Your task to perform on an android device: Go to Google Image 0: 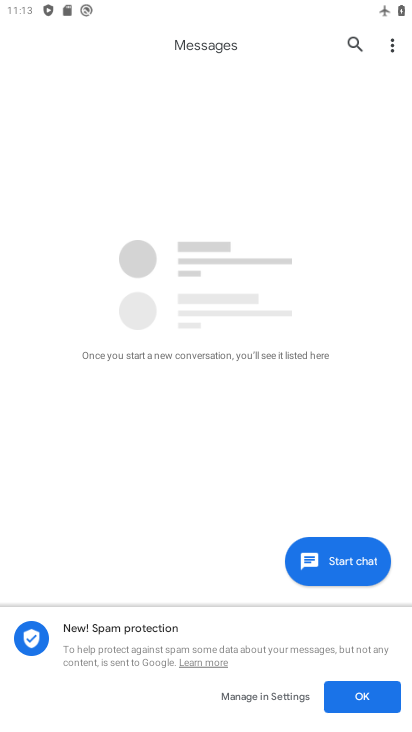
Step 0: press home button
Your task to perform on an android device: Go to Google Image 1: 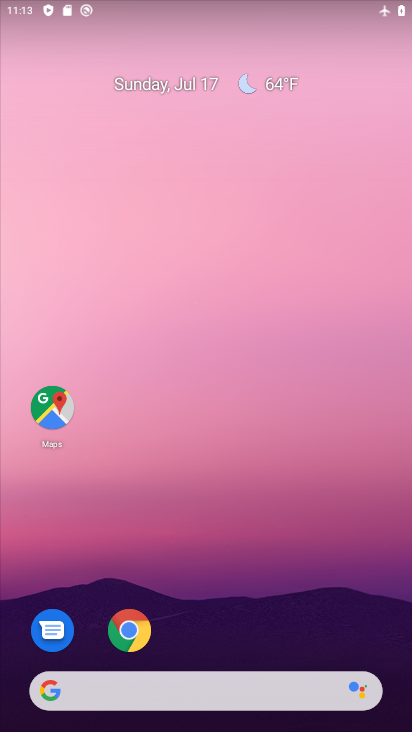
Step 1: click (131, 630)
Your task to perform on an android device: Go to Google Image 2: 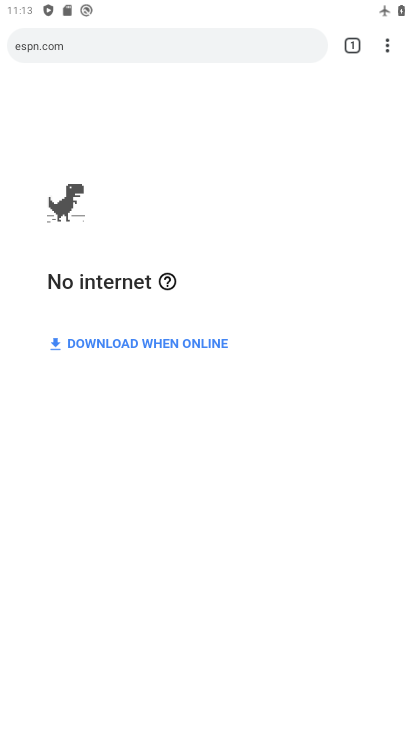
Step 2: click (94, 51)
Your task to perform on an android device: Go to Google Image 3: 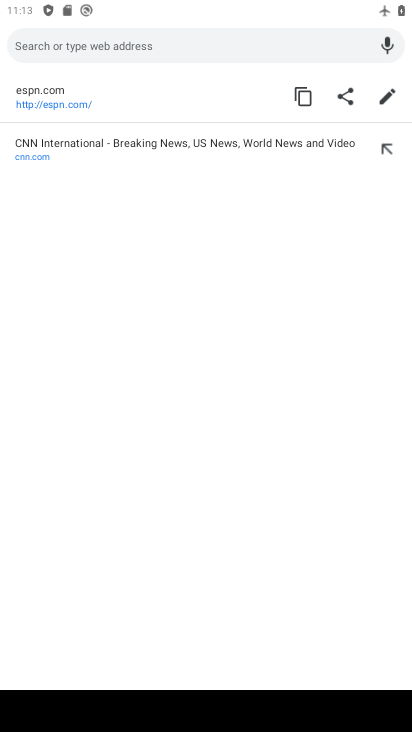
Step 3: task complete